Your task to perform on an android device: Search for sushi restaurants on Maps Image 0: 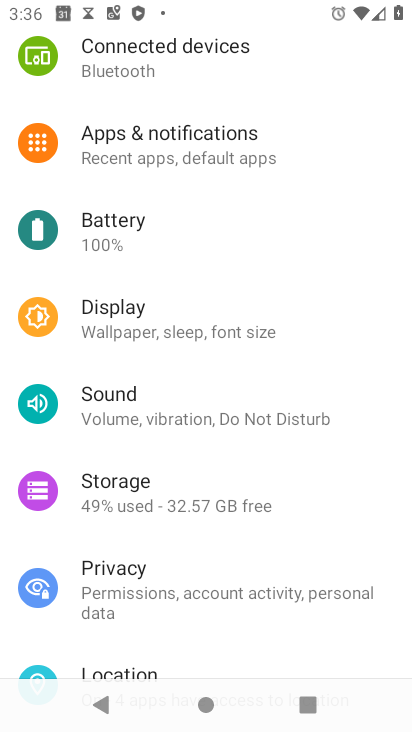
Step 0: press home button
Your task to perform on an android device: Search for sushi restaurants on Maps Image 1: 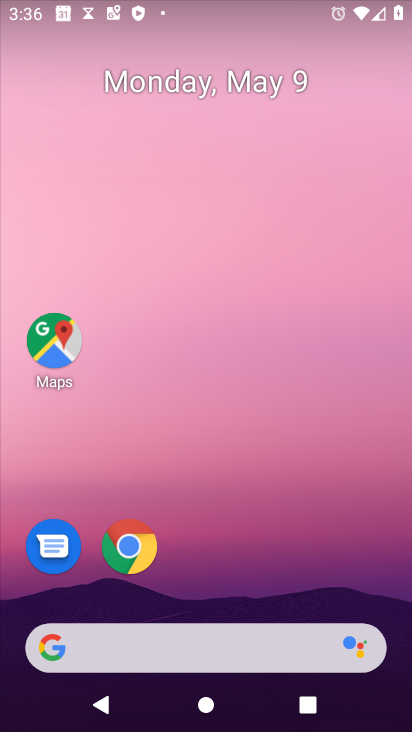
Step 1: drag from (275, 450) to (213, 67)
Your task to perform on an android device: Search for sushi restaurants on Maps Image 2: 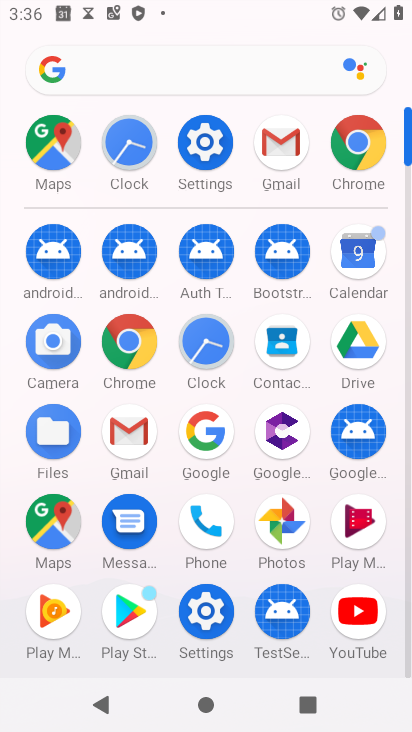
Step 2: click (63, 540)
Your task to perform on an android device: Search for sushi restaurants on Maps Image 3: 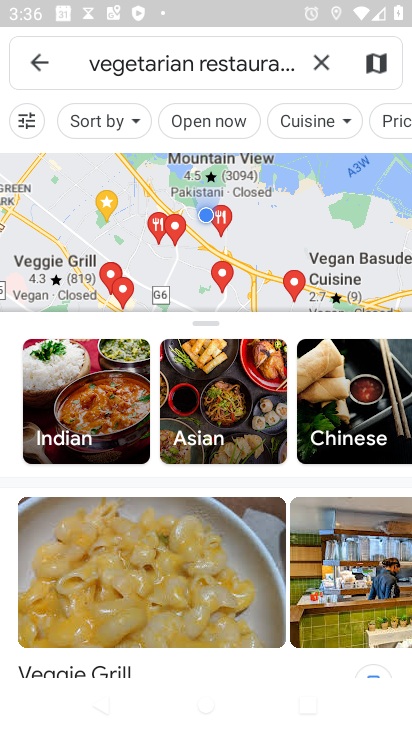
Step 3: click (322, 67)
Your task to perform on an android device: Search for sushi restaurants on Maps Image 4: 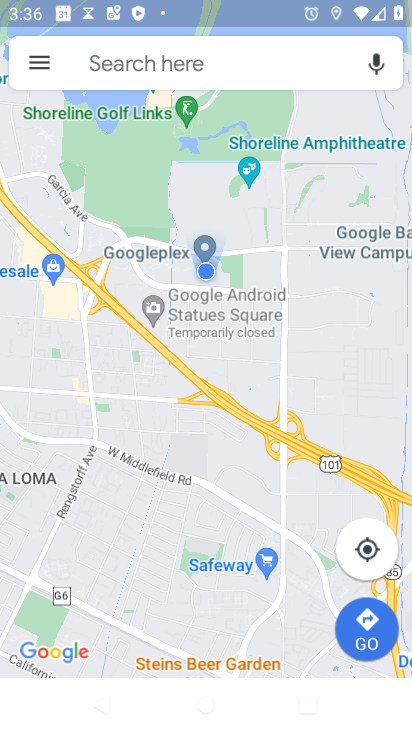
Step 4: click (236, 57)
Your task to perform on an android device: Search for sushi restaurants on Maps Image 5: 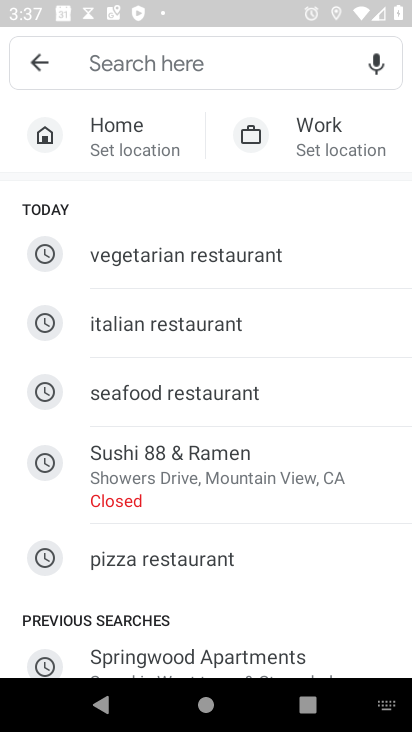
Step 5: type "sushi resturents"
Your task to perform on an android device: Search for sushi restaurants on Maps Image 6: 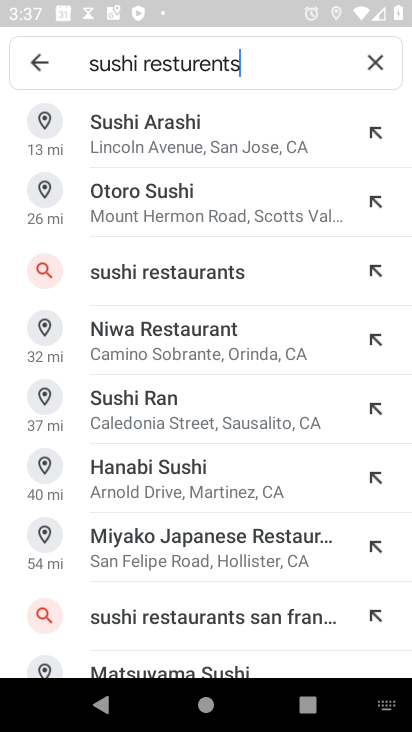
Step 6: click (163, 132)
Your task to perform on an android device: Search for sushi restaurants on Maps Image 7: 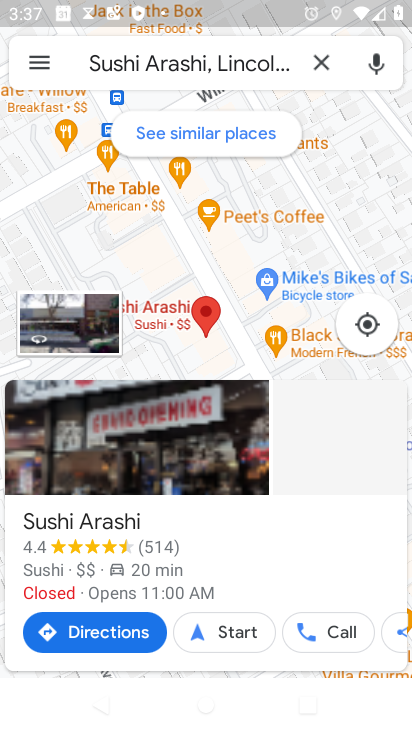
Step 7: task complete